Your task to perform on an android device: Add "usb-a to usb-b" to the cart on ebay, then select checkout. Image 0: 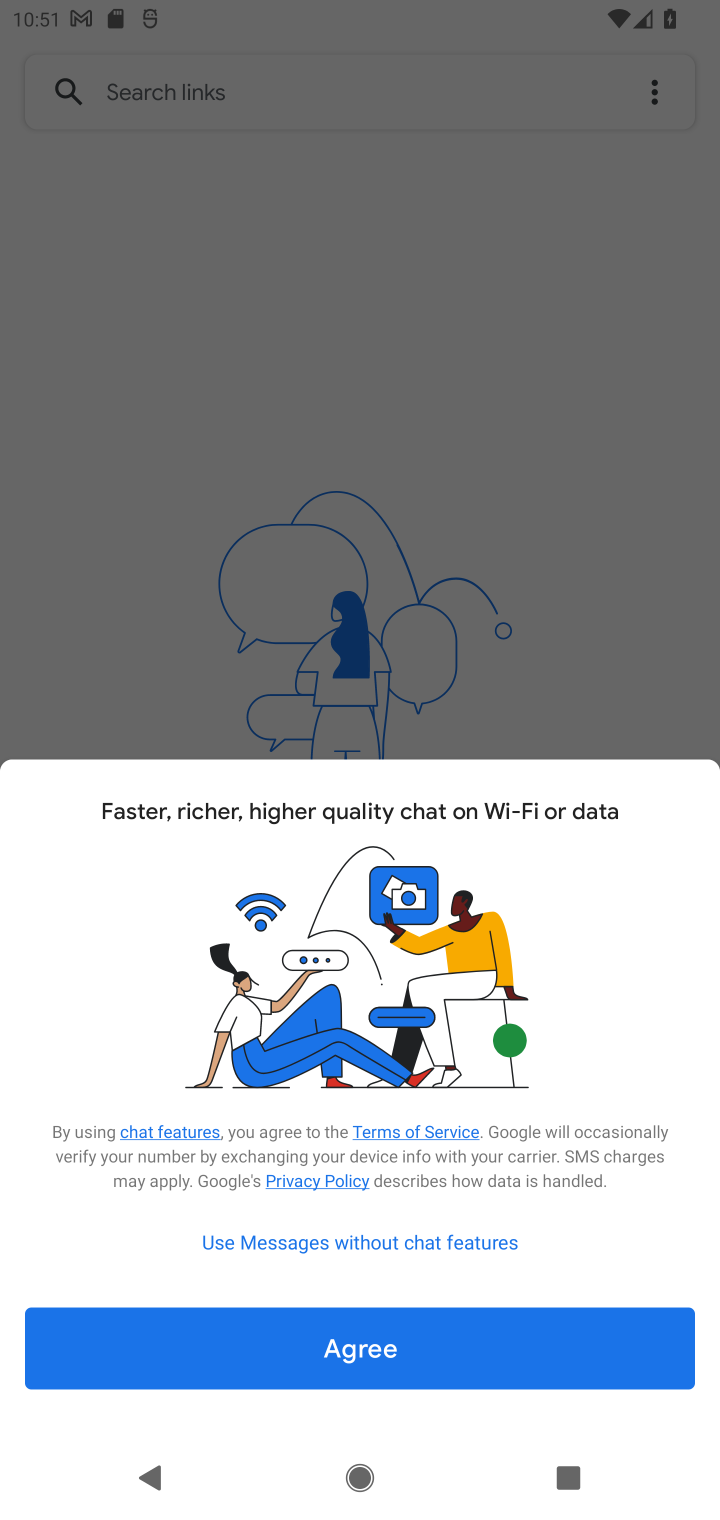
Step 0: press home button
Your task to perform on an android device: Add "usb-a to usb-b" to the cart on ebay, then select checkout. Image 1: 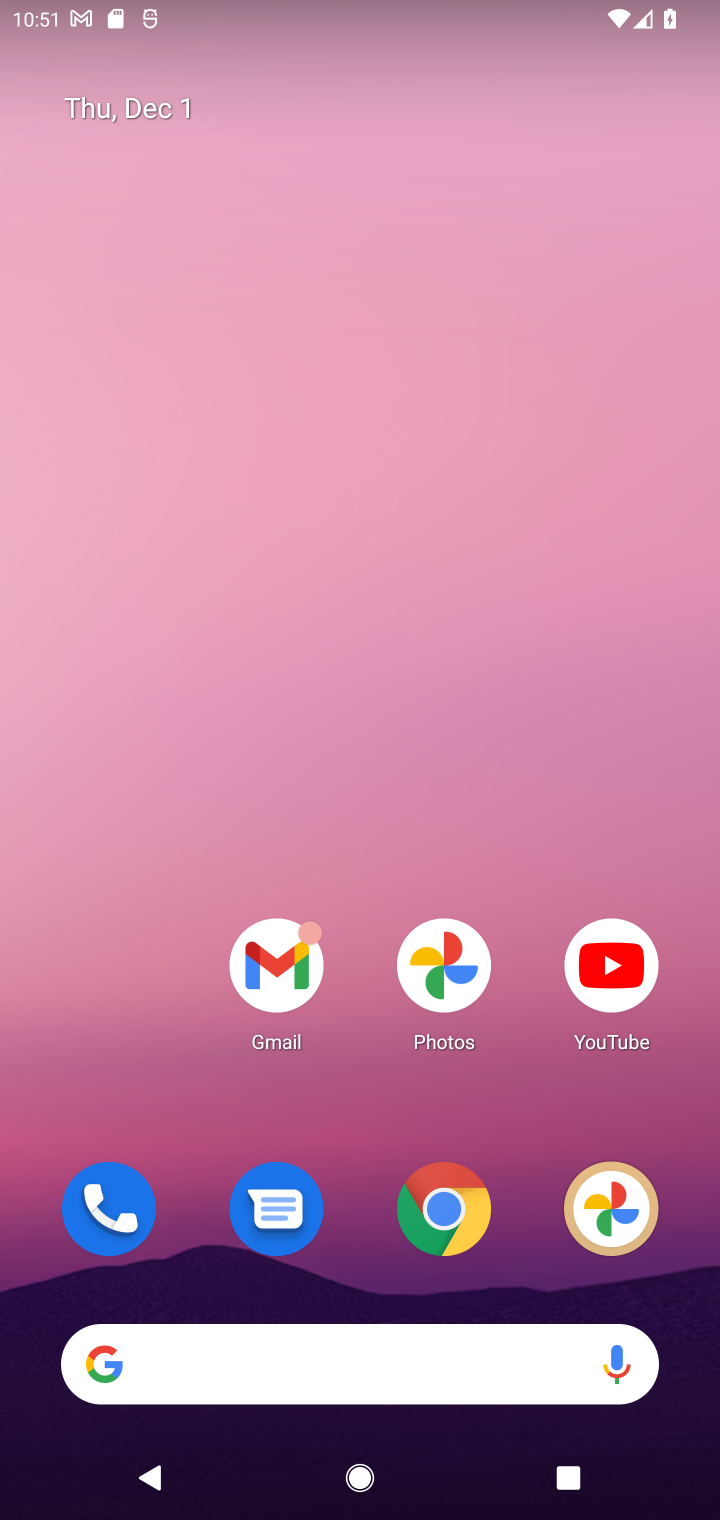
Step 1: click (450, 1208)
Your task to perform on an android device: Add "usb-a to usb-b" to the cart on ebay, then select checkout. Image 2: 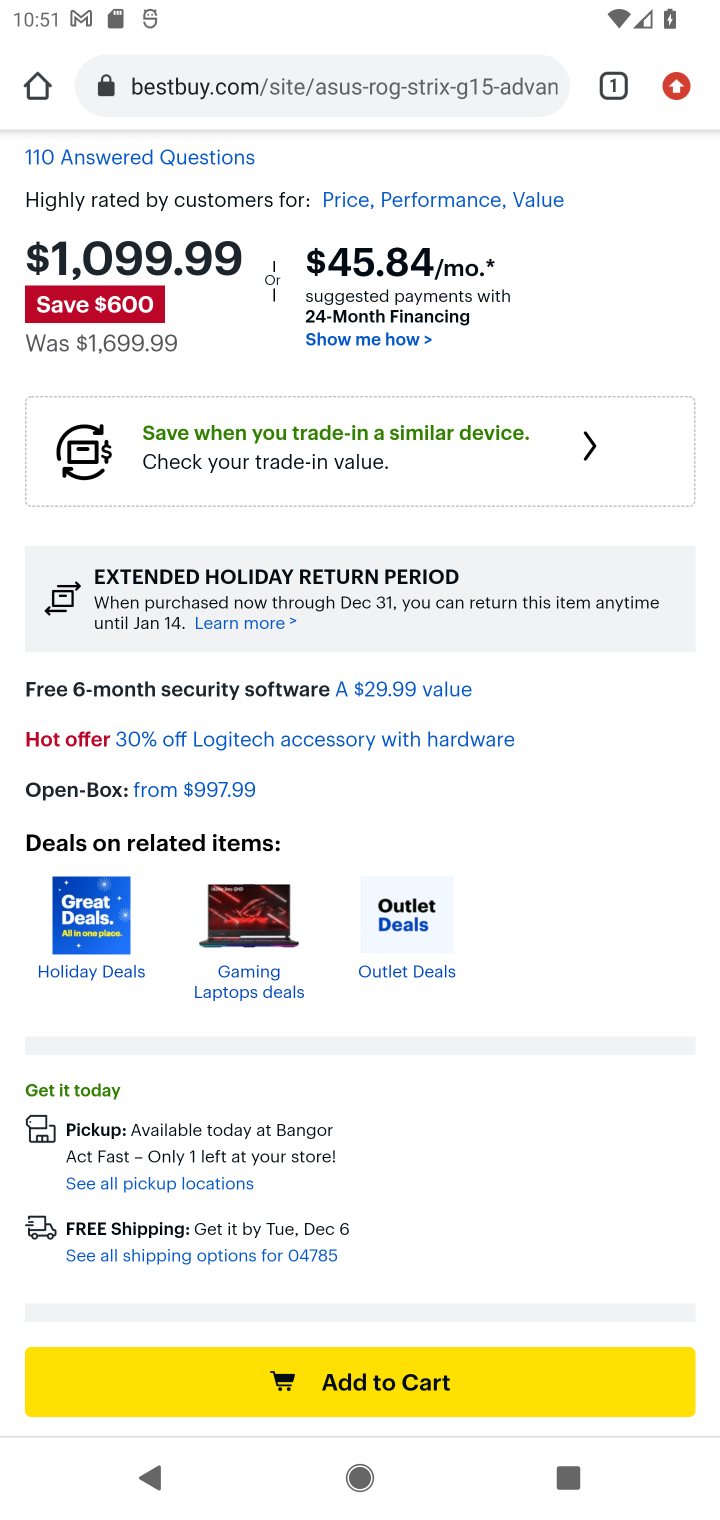
Step 2: drag from (369, 259) to (539, 1302)
Your task to perform on an android device: Add "usb-a to usb-b" to the cart on ebay, then select checkout. Image 3: 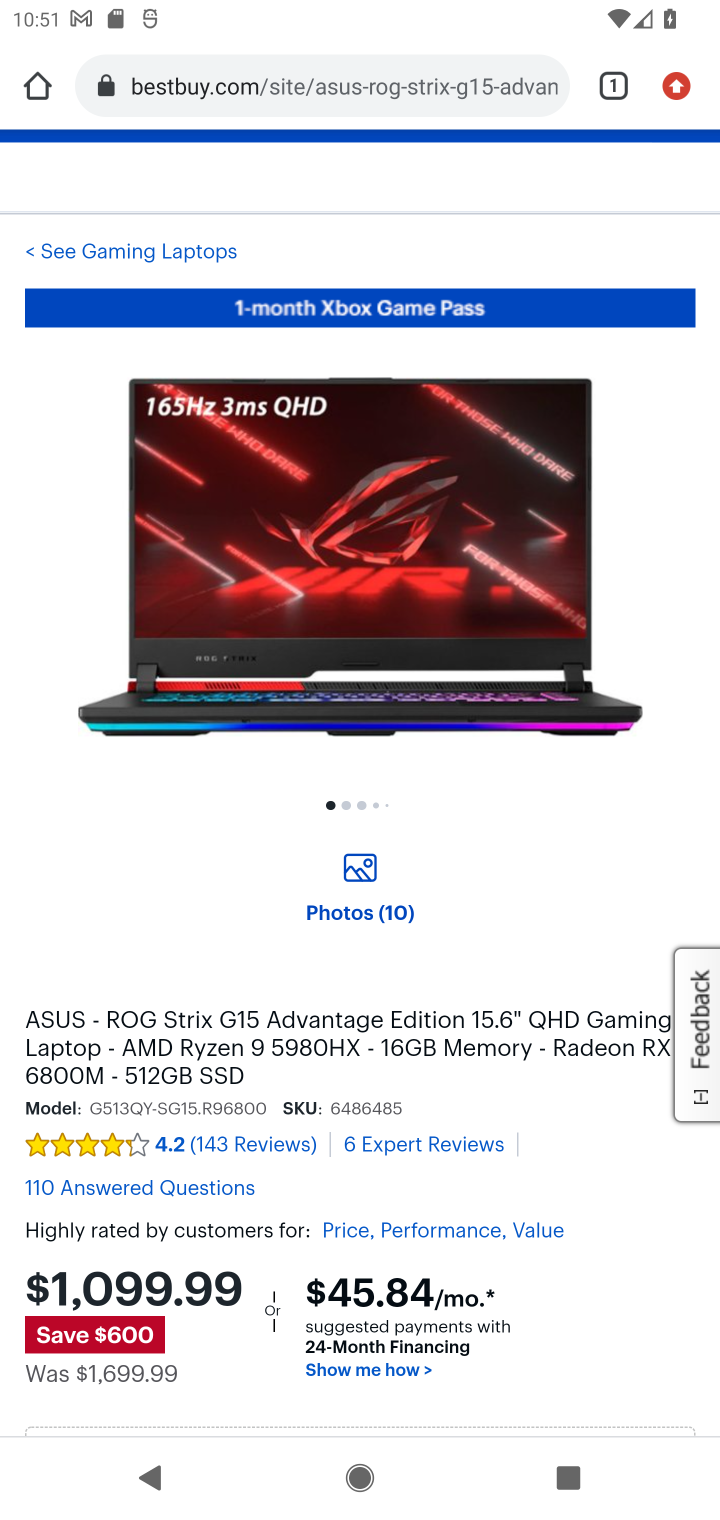
Step 3: drag from (319, 265) to (317, 1006)
Your task to perform on an android device: Add "usb-a to usb-b" to the cart on ebay, then select checkout. Image 4: 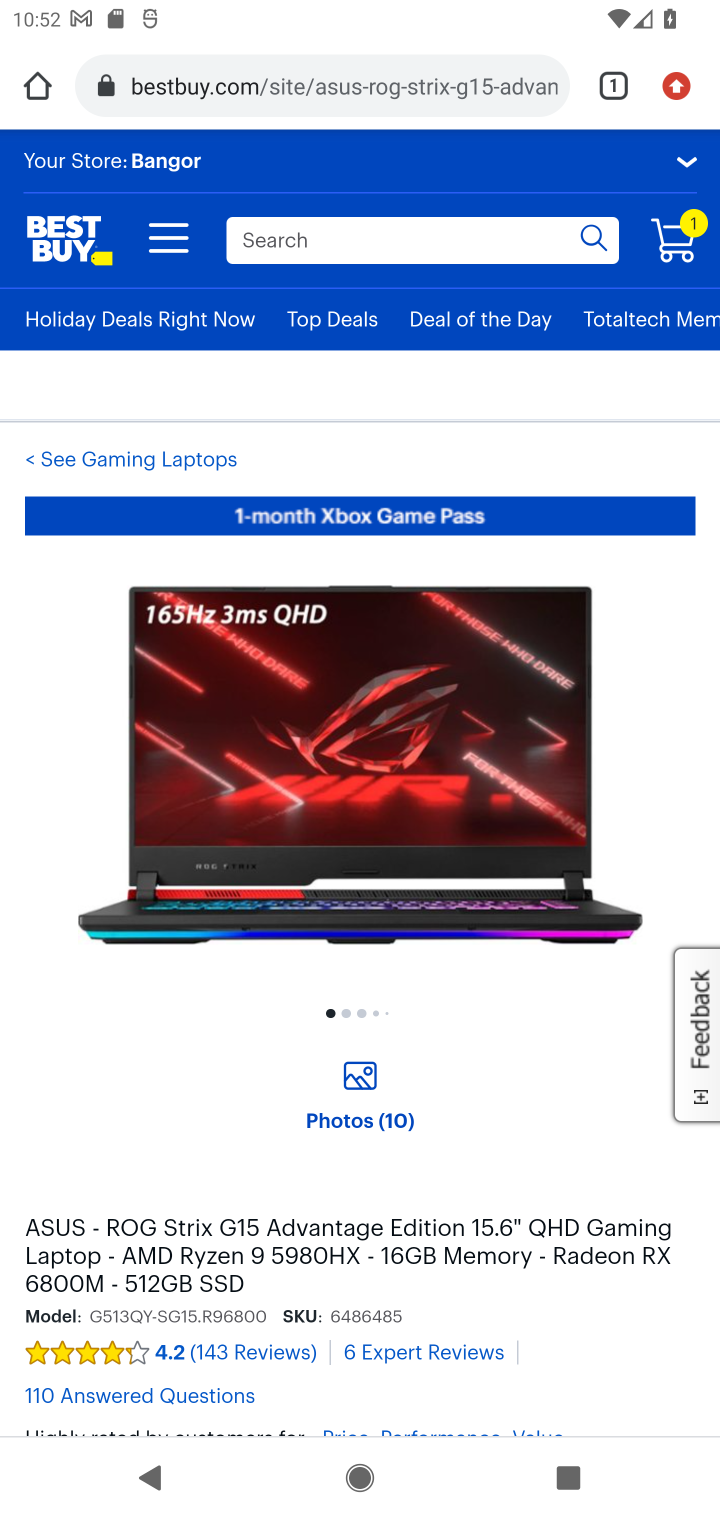
Step 4: click (74, 244)
Your task to perform on an android device: Add "usb-a to usb-b" to the cart on ebay, then select checkout. Image 5: 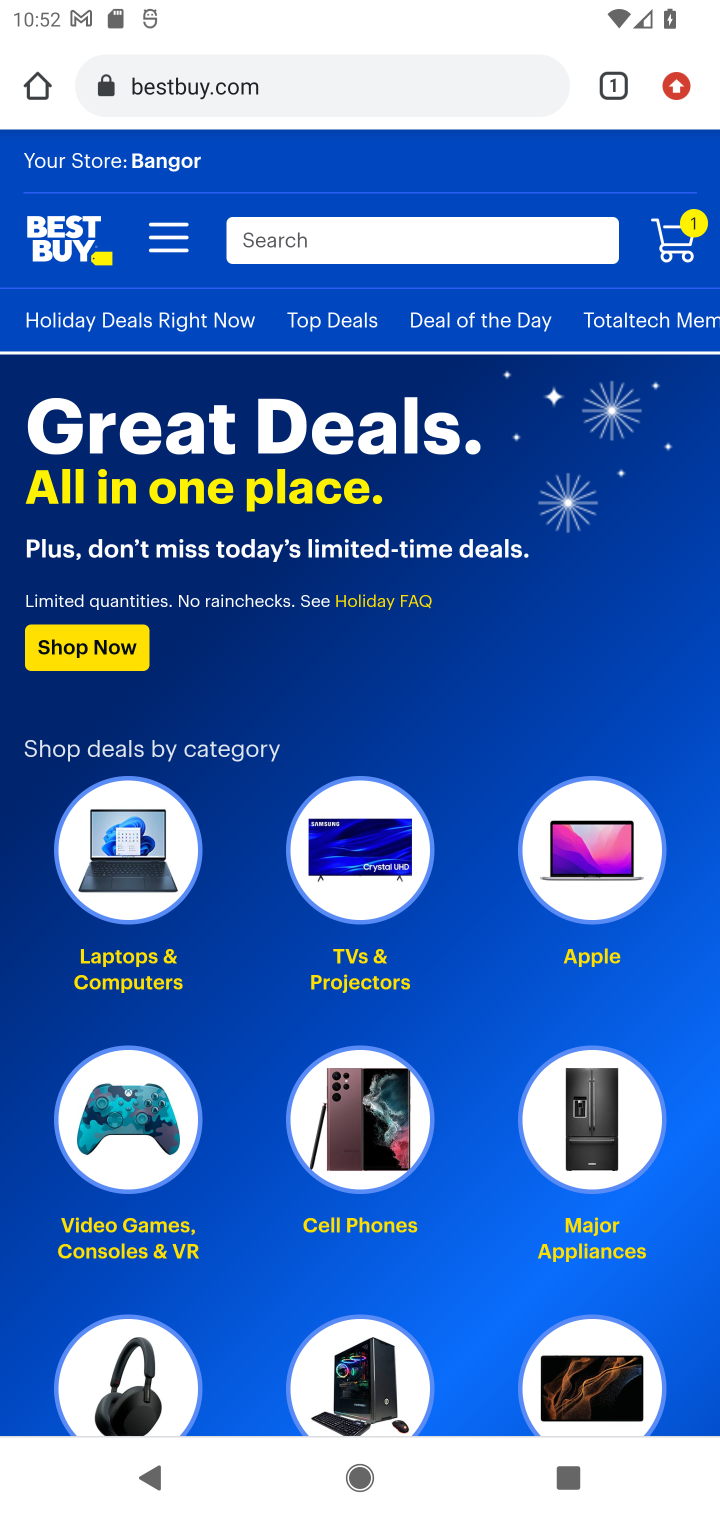
Step 5: click (413, 245)
Your task to perform on an android device: Add "usb-a to usb-b" to the cart on ebay, then select checkout. Image 6: 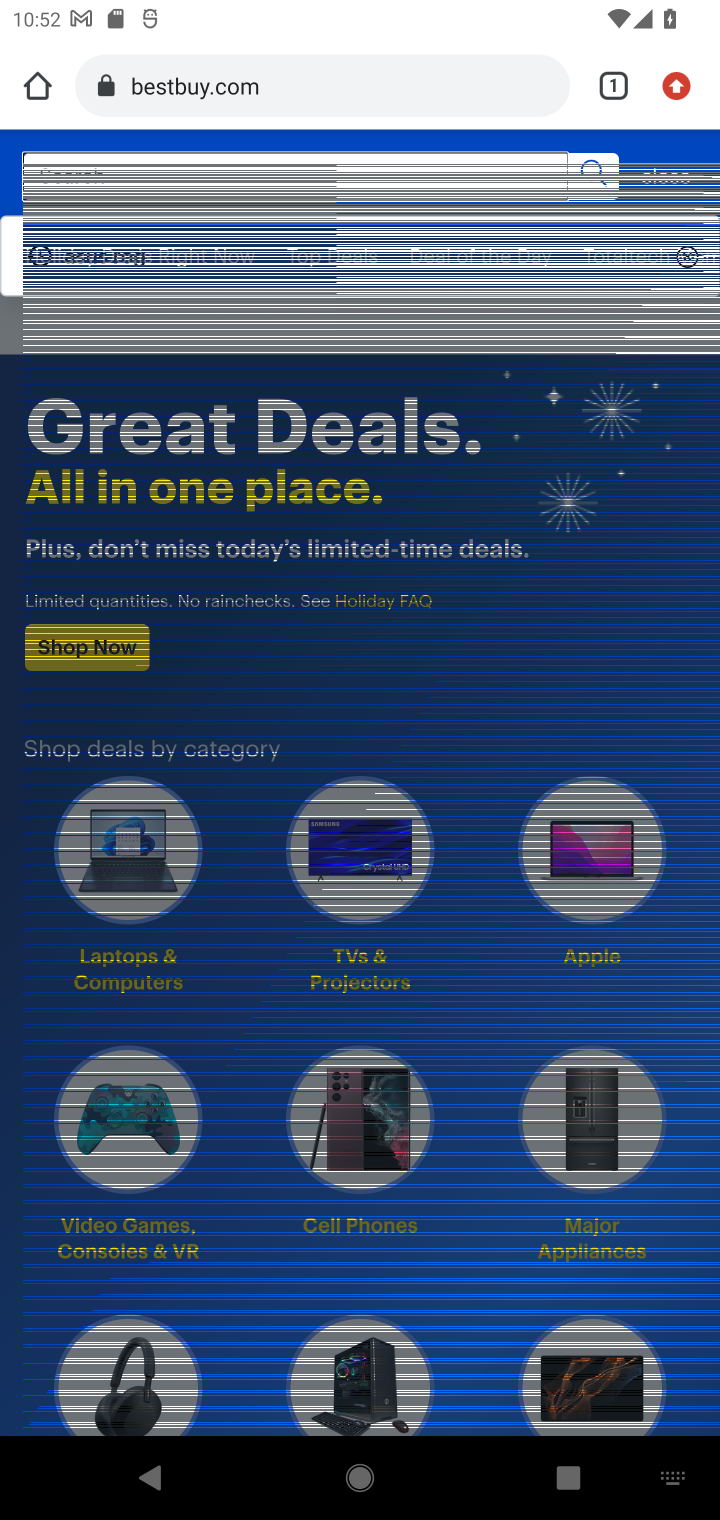
Step 6: click (183, 171)
Your task to perform on an android device: Add "usb-a to usb-b" to the cart on ebay, then select checkout. Image 7: 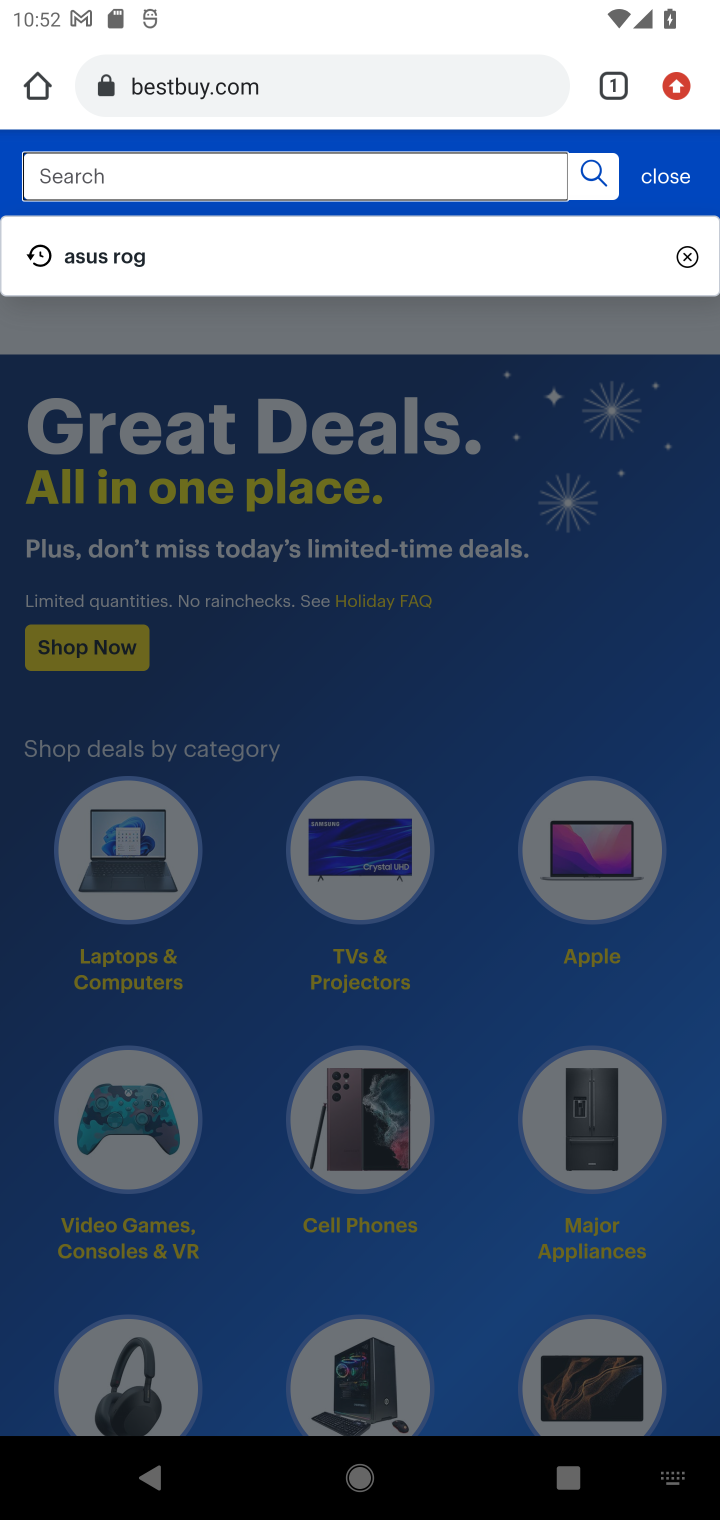
Step 7: type "usb-a to usb-b"
Your task to perform on an android device: Add "usb-a to usb-b" to the cart on ebay, then select checkout. Image 8: 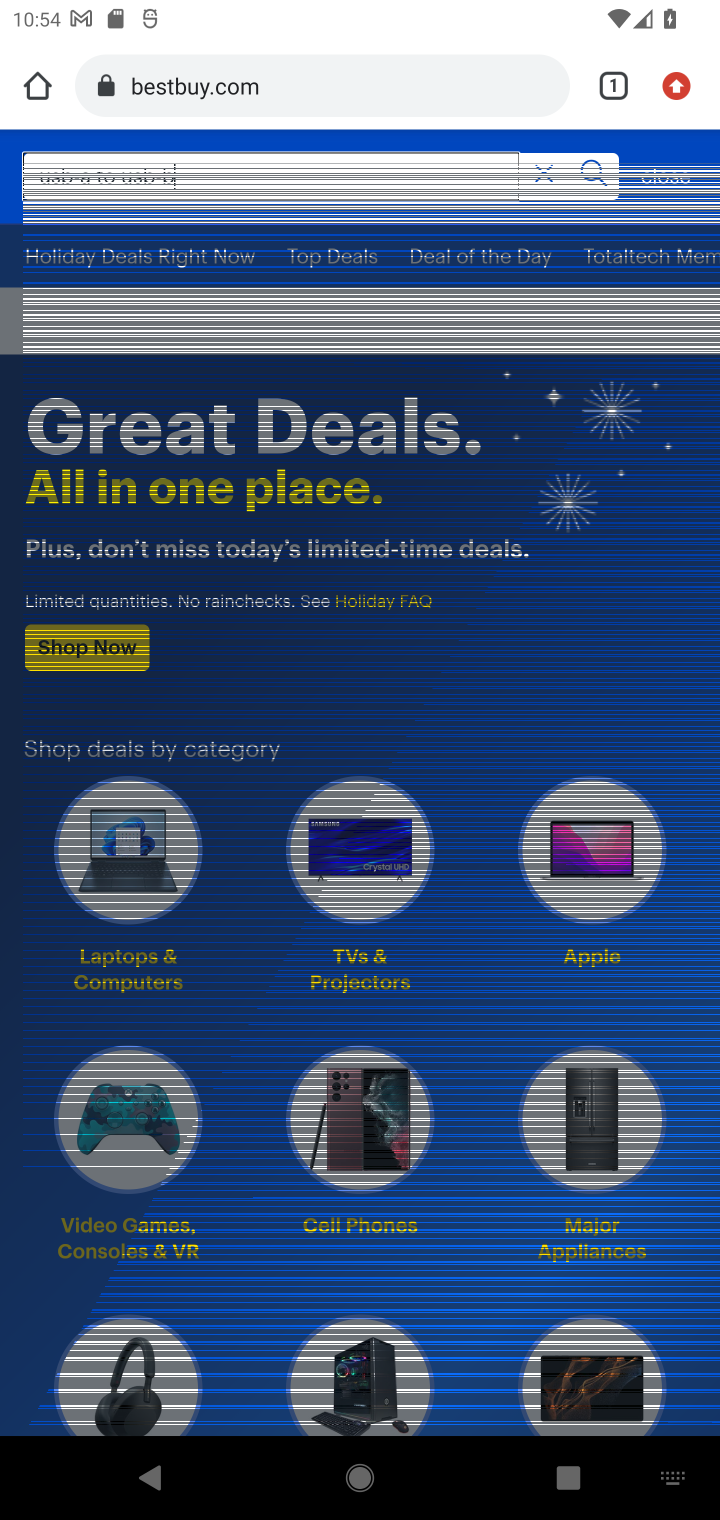
Step 8: click (588, 175)
Your task to perform on an android device: Add "usb-a to usb-b" to the cart on ebay, then select checkout. Image 9: 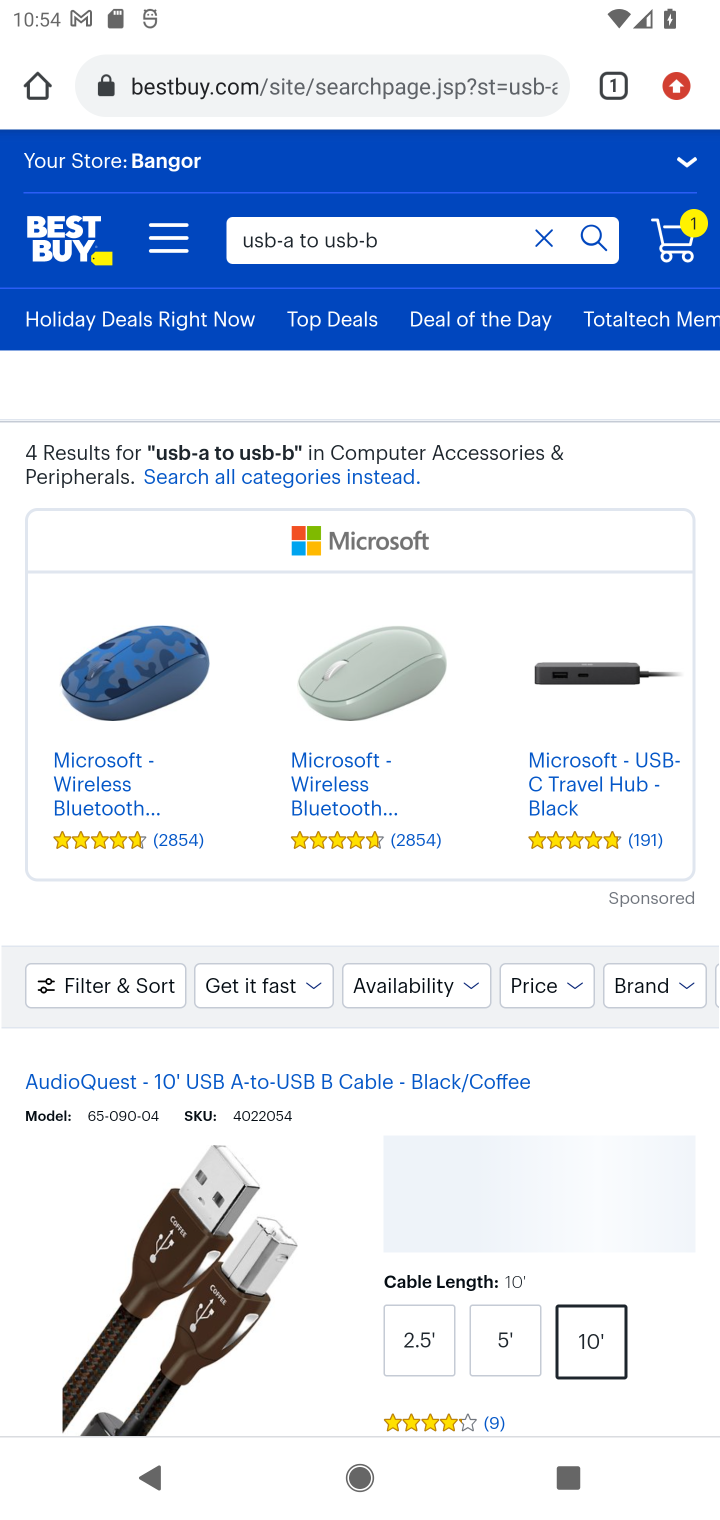
Step 9: click (250, 1302)
Your task to perform on an android device: Add "usb-a to usb-b" to the cart on ebay, then select checkout. Image 10: 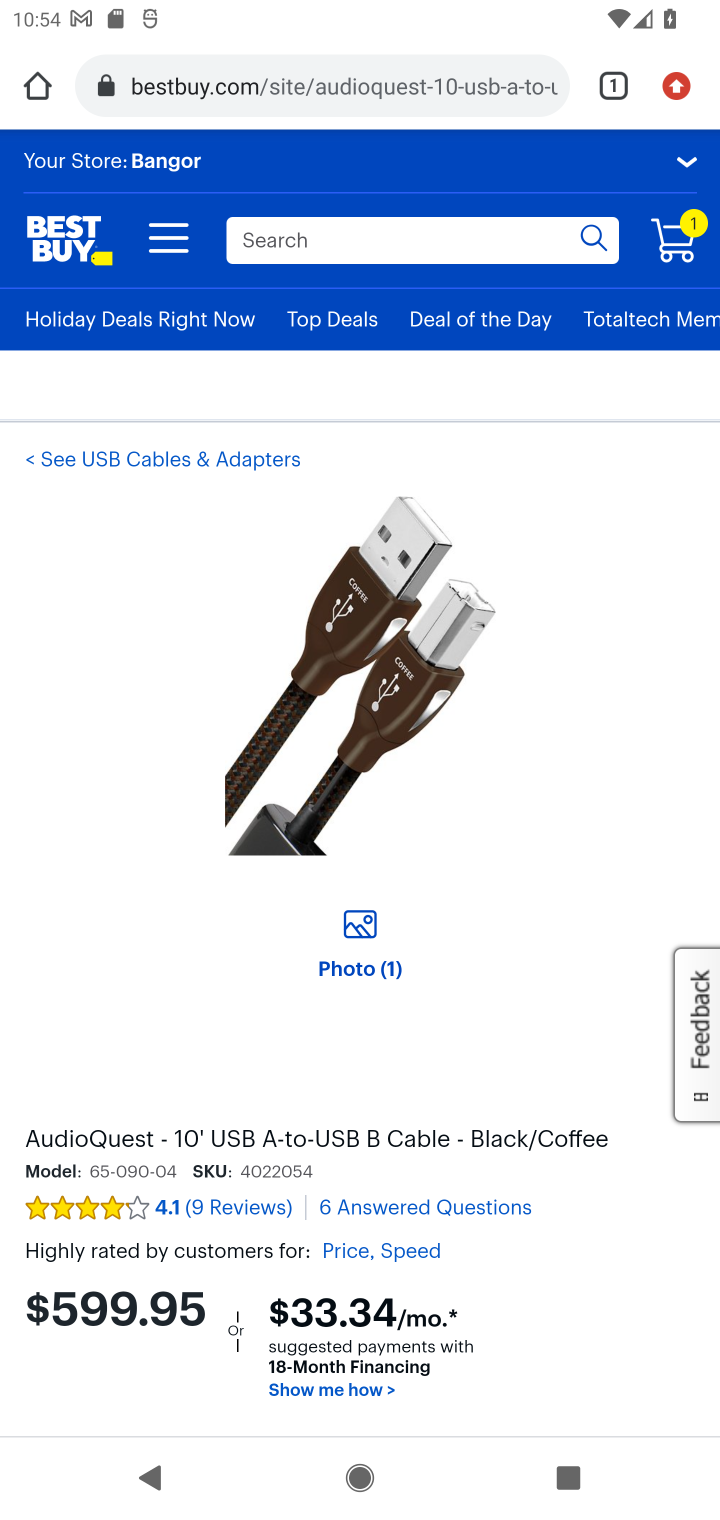
Step 10: drag from (224, 1349) to (201, 493)
Your task to perform on an android device: Add "usb-a to usb-b" to the cart on ebay, then select checkout. Image 11: 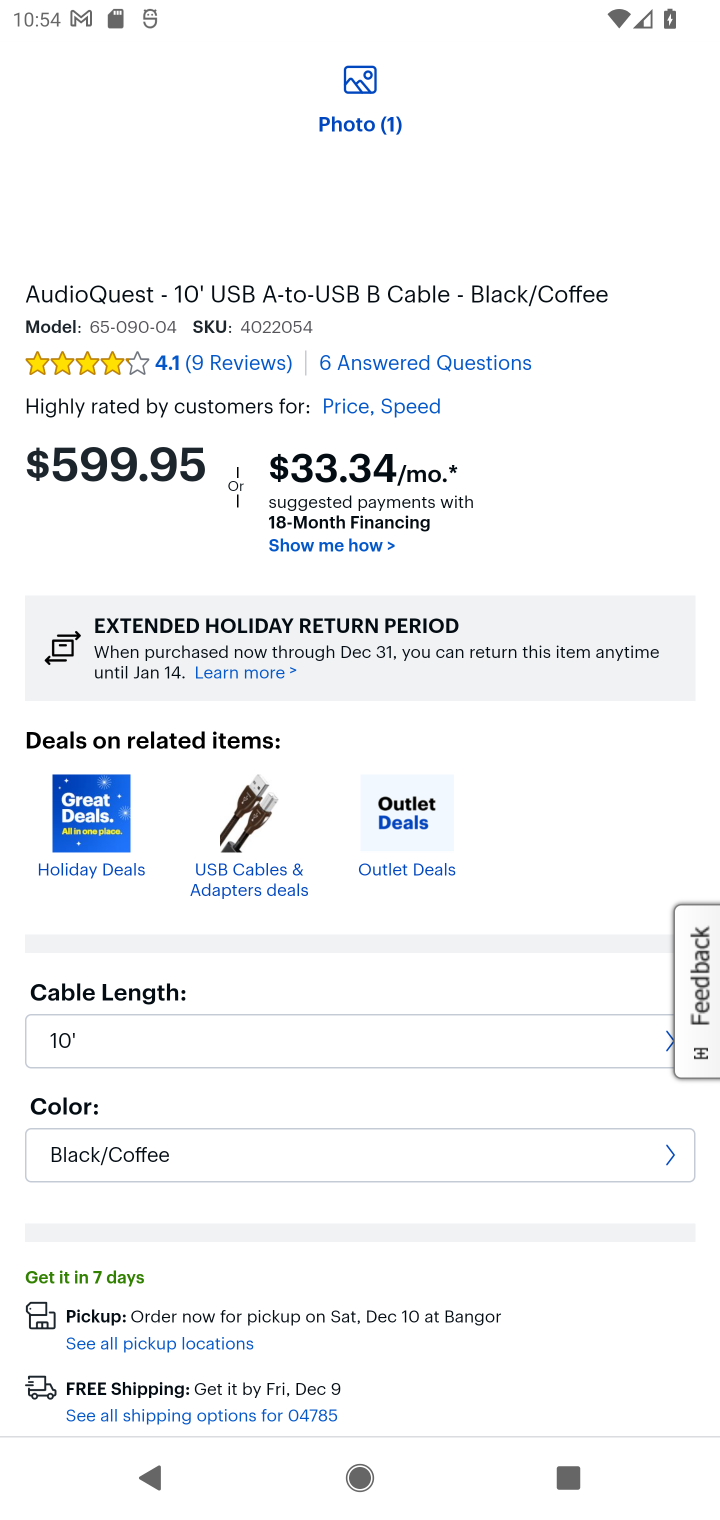
Step 11: drag from (241, 1298) to (304, 412)
Your task to perform on an android device: Add "usb-a to usb-b" to the cart on ebay, then select checkout. Image 12: 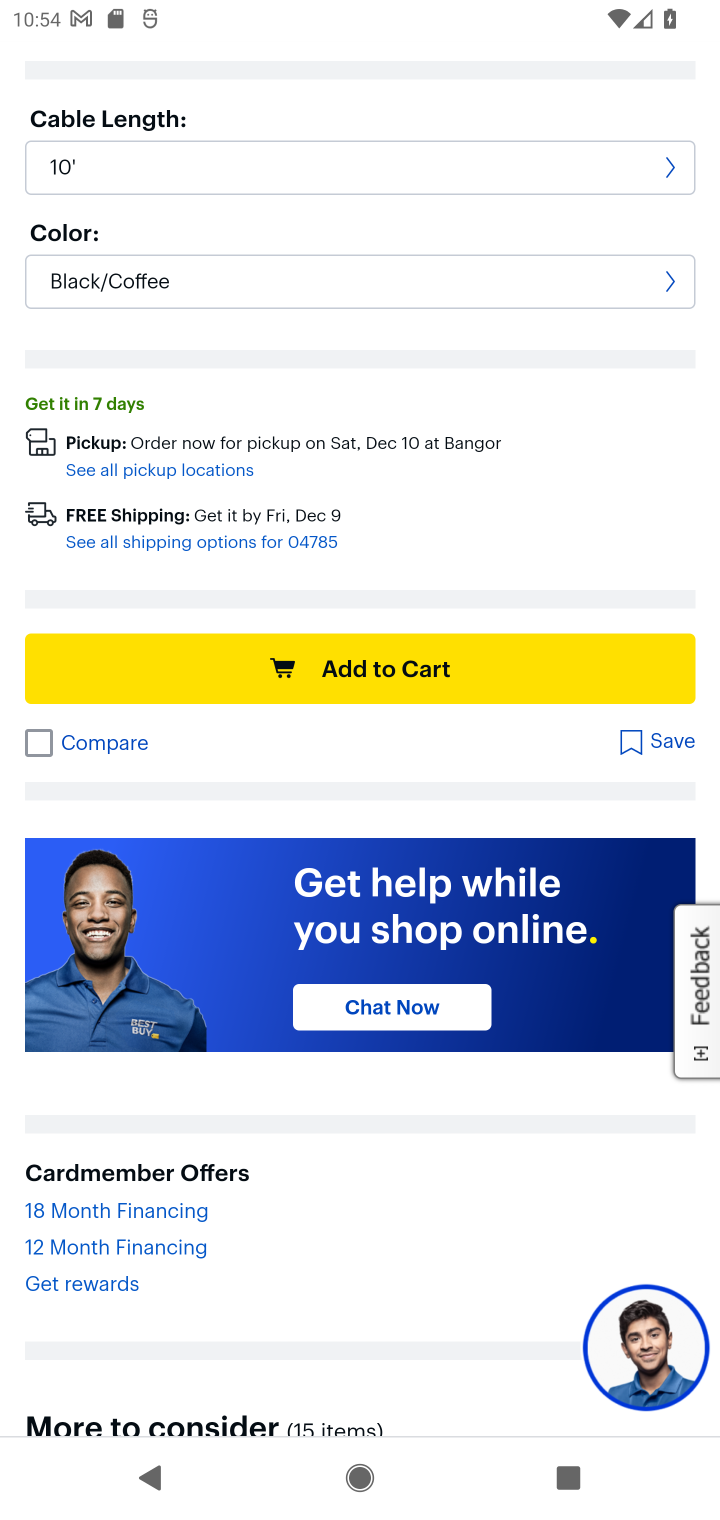
Step 12: click (327, 662)
Your task to perform on an android device: Add "usb-a to usb-b" to the cart on ebay, then select checkout. Image 13: 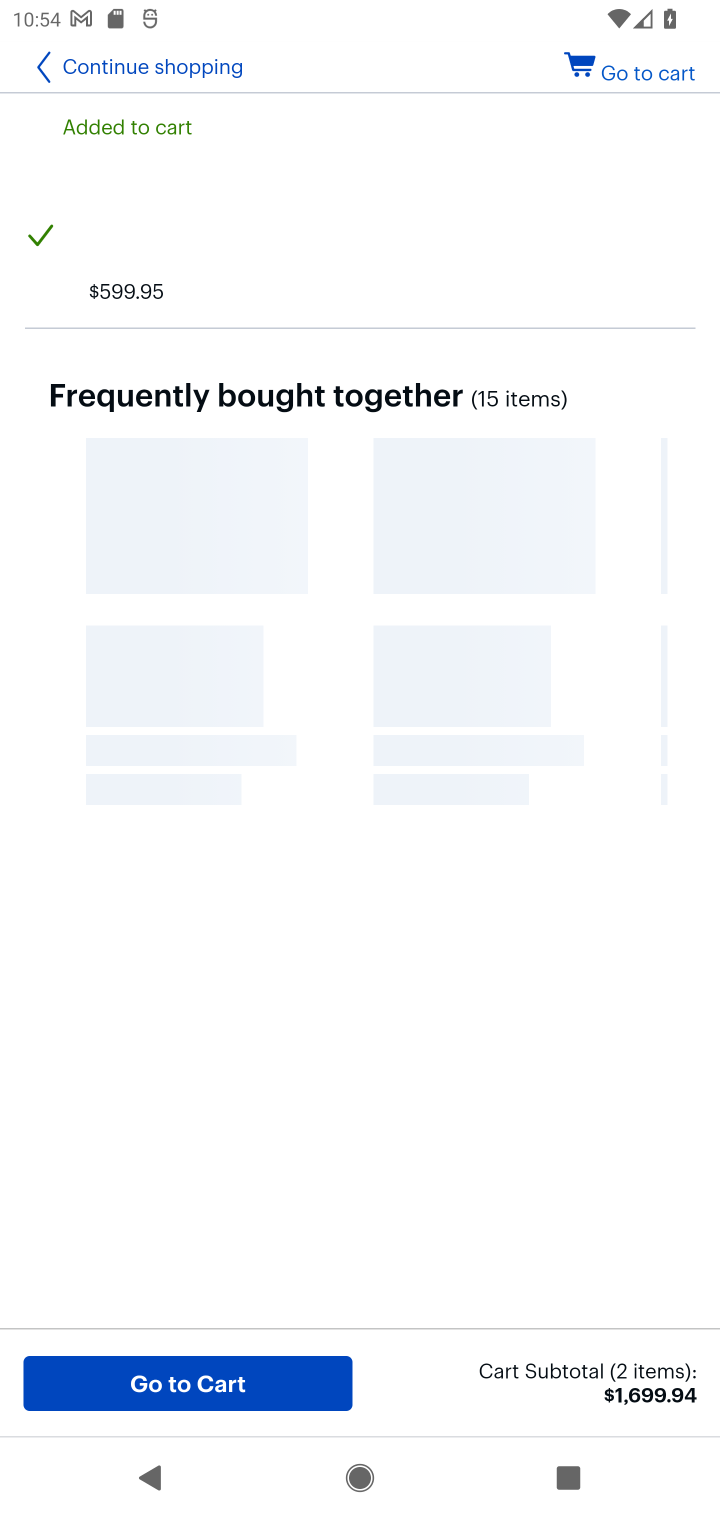
Step 13: click (202, 1385)
Your task to perform on an android device: Add "usb-a to usb-b" to the cart on ebay, then select checkout. Image 14: 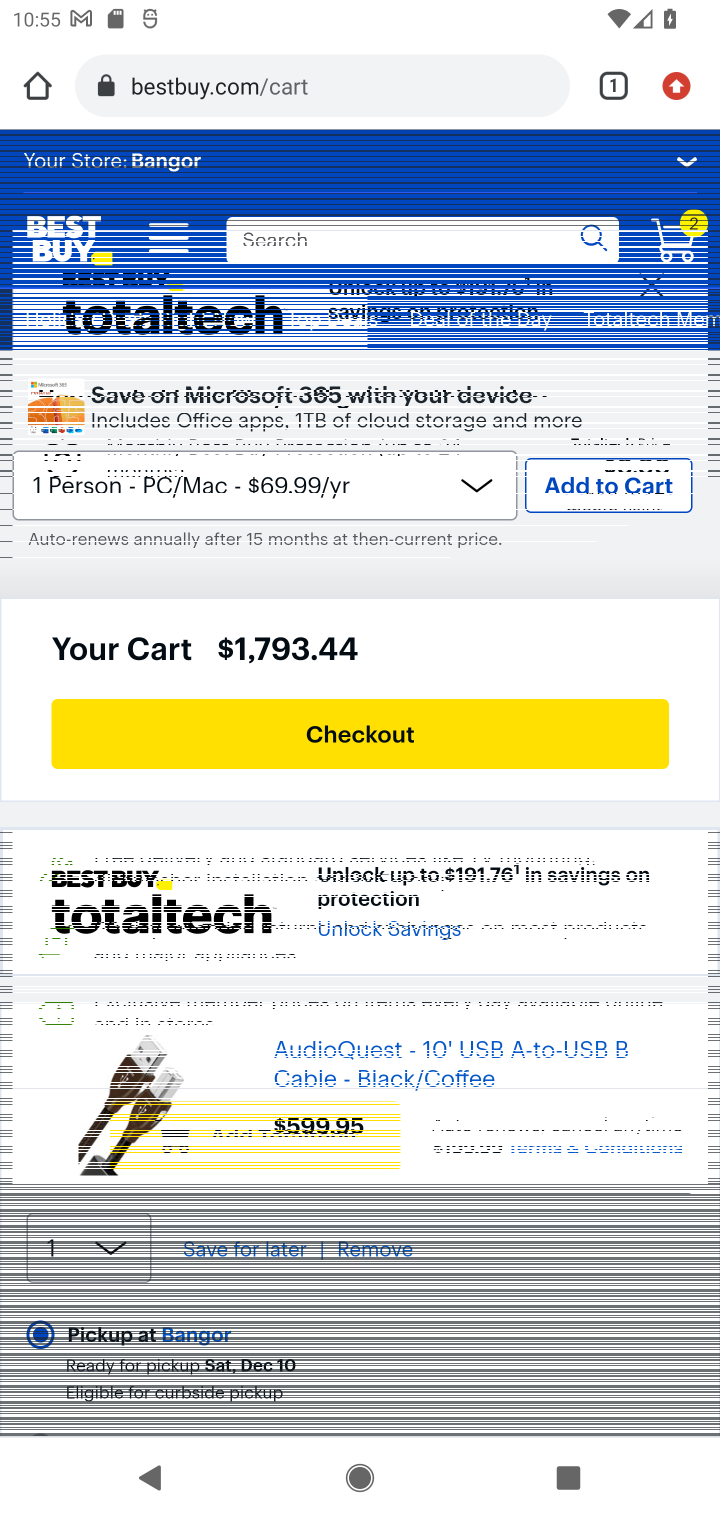
Step 14: click (407, 731)
Your task to perform on an android device: Add "usb-a to usb-b" to the cart on ebay, then select checkout. Image 15: 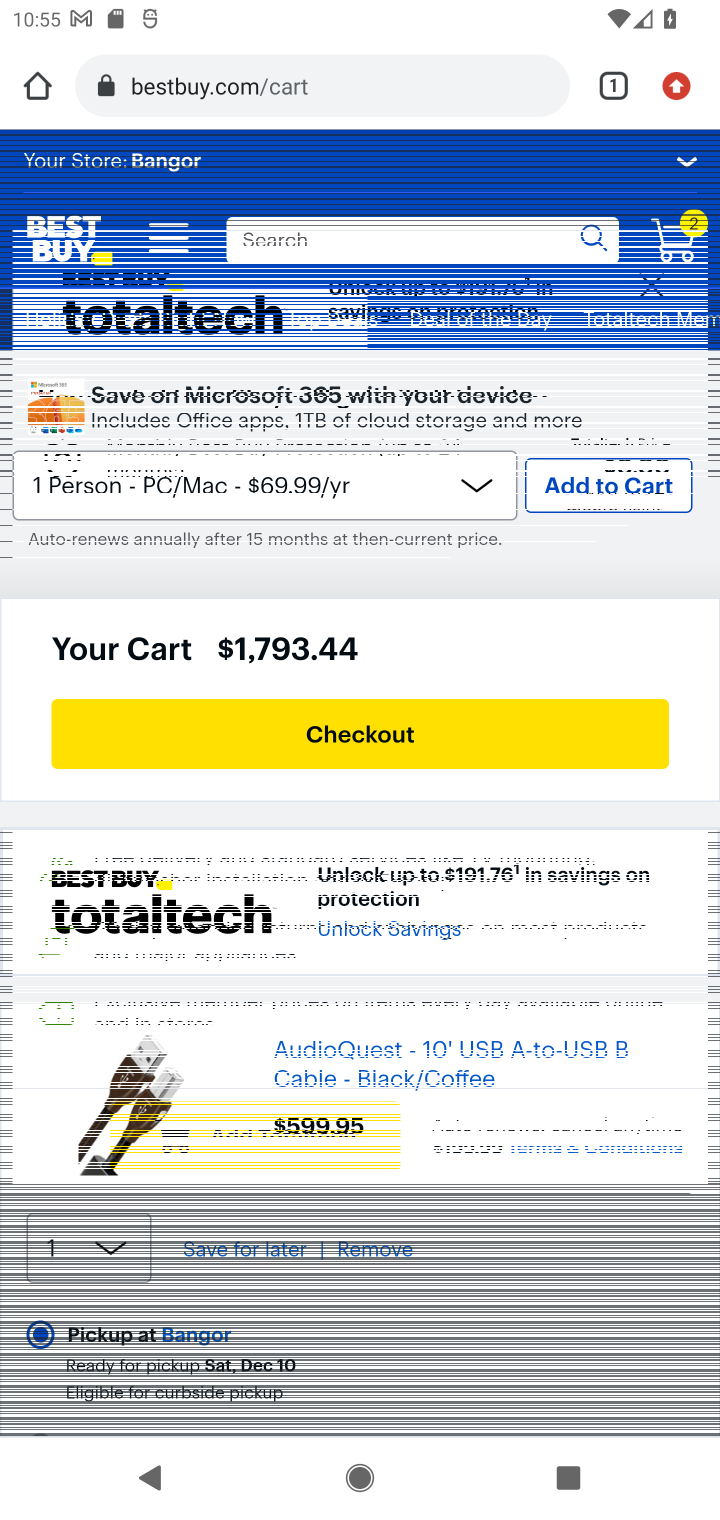
Step 15: click (516, 720)
Your task to perform on an android device: Add "usb-a to usb-b" to the cart on ebay, then select checkout. Image 16: 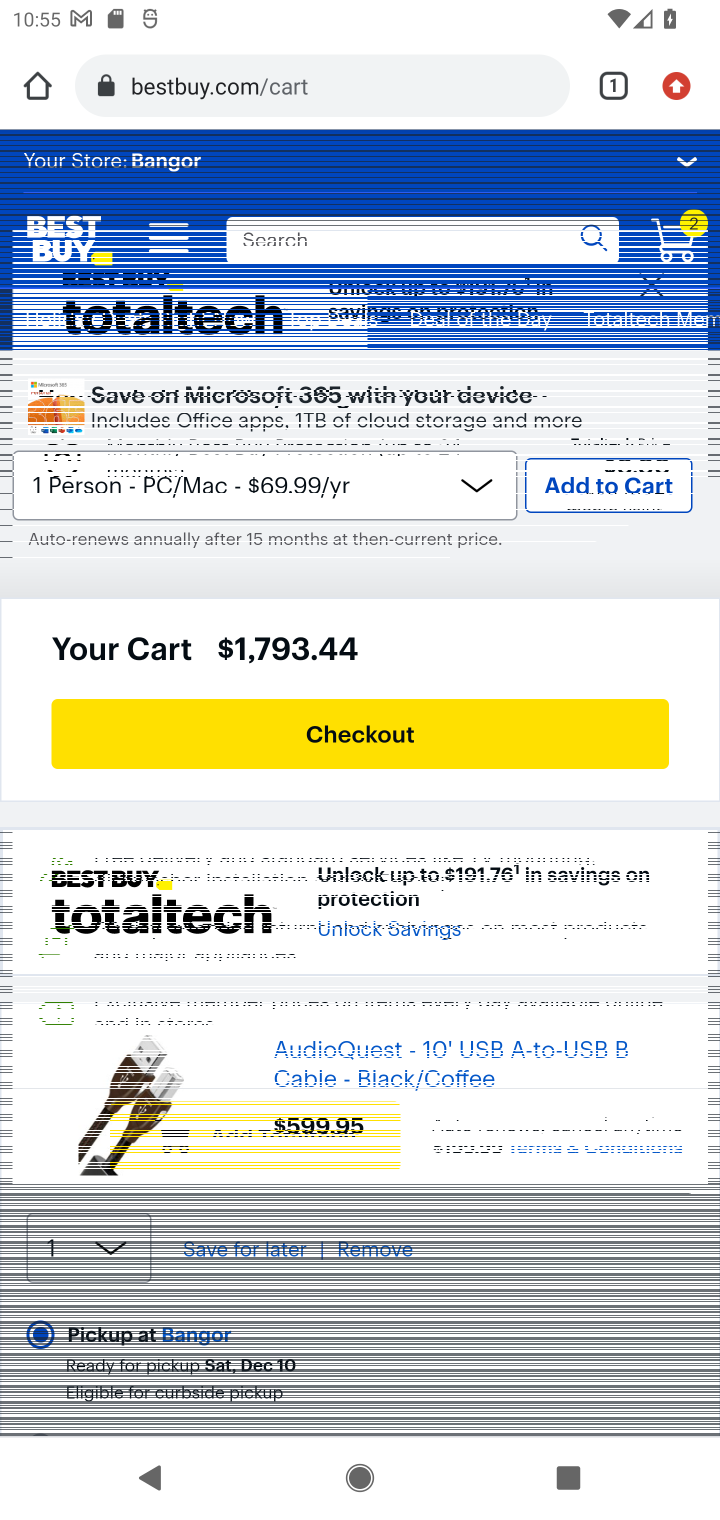
Step 16: click (429, 736)
Your task to perform on an android device: Add "usb-a to usb-b" to the cart on ebay, then select checkout. Image 17: 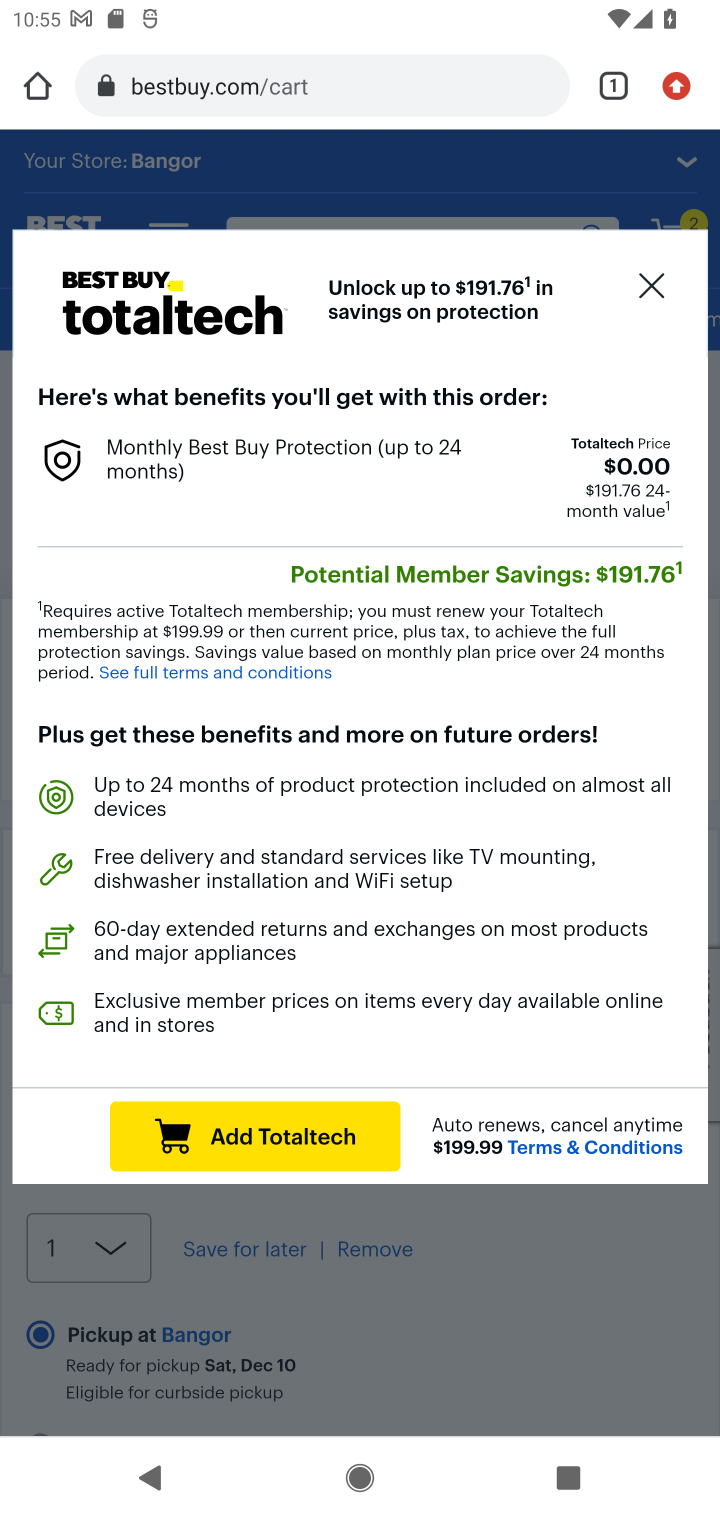
Step 17: click (653, 289)
Your task to perform on an android device: Add "usb-a to usb-b" to the cart on ebay, then select checkout. Image 18: 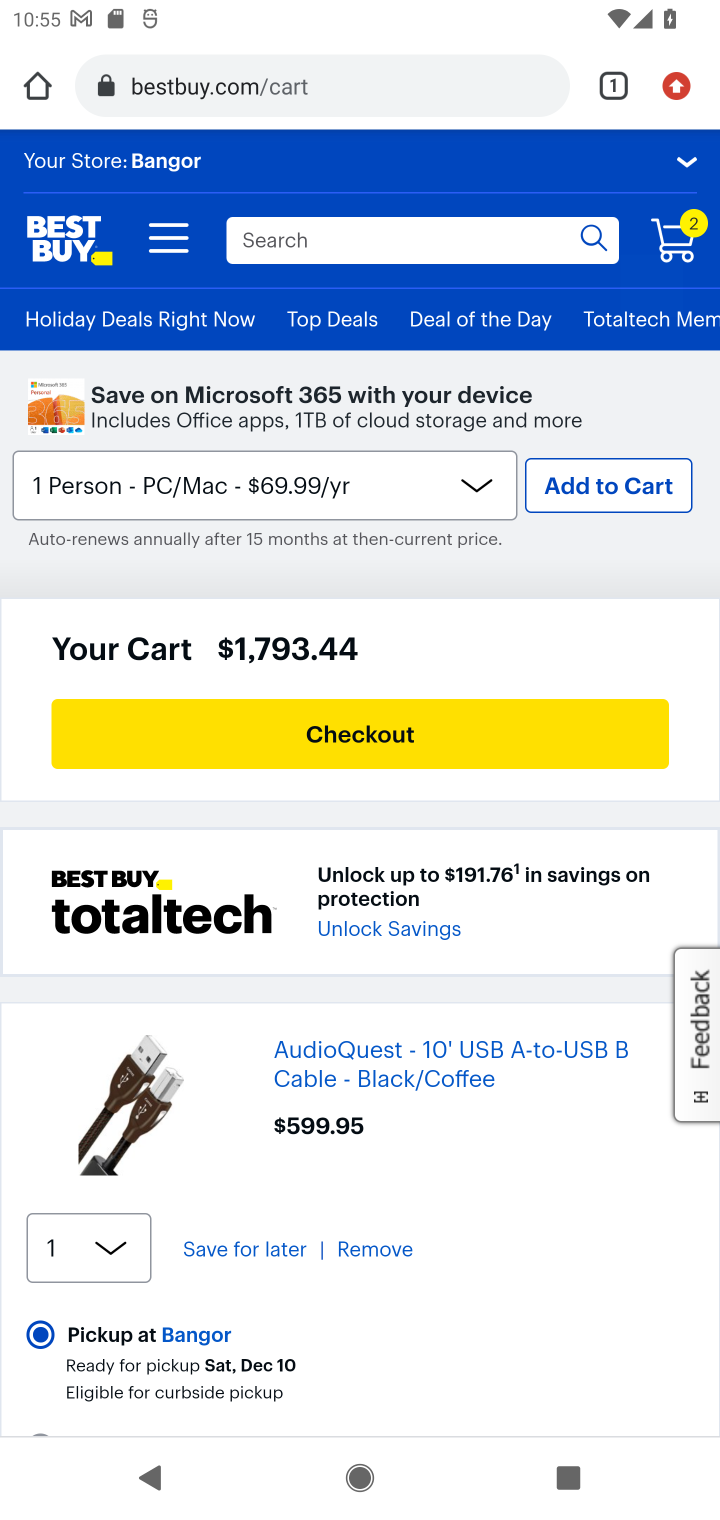
Step 18: task complete